Your task to perform on an android device: Open Chrome and go to the settings page Image 0: 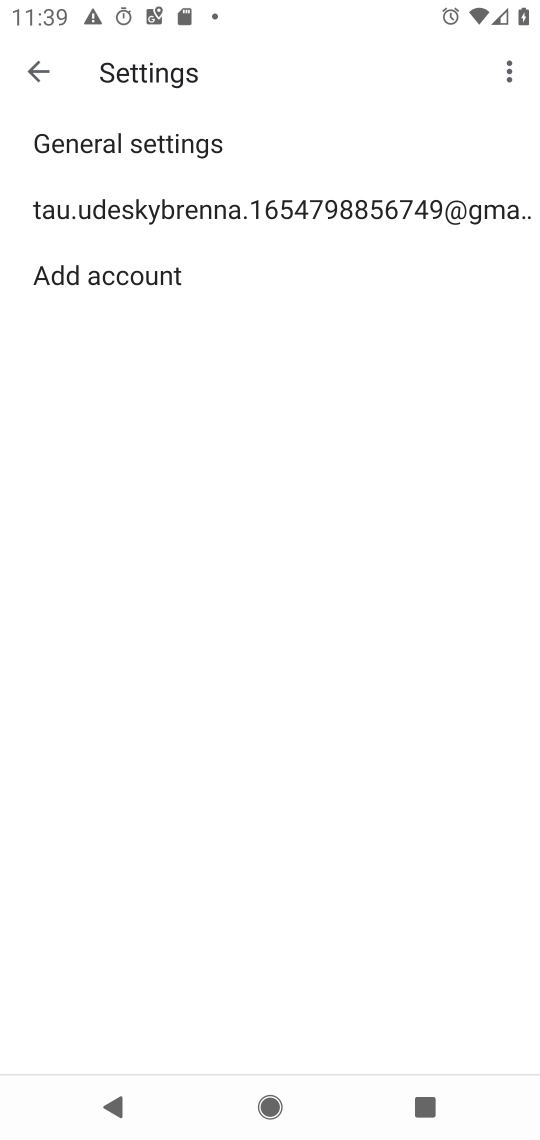
Step 0: press home button
Your task to perform on an android device: Open Chrome and go to the settings page Image 1: 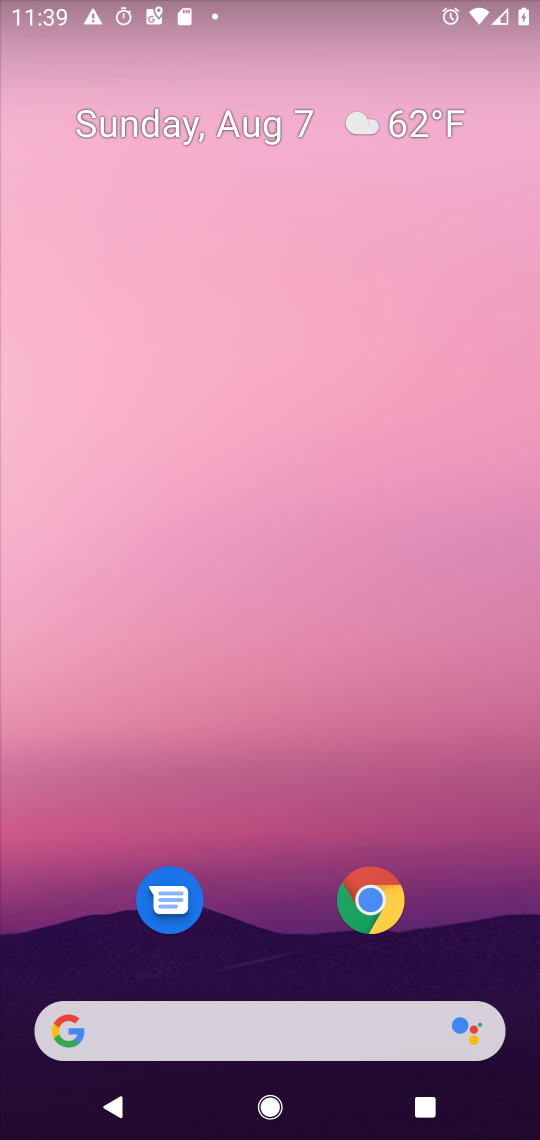
Step 1: click (364, 895)
Your task to perform on an android device: Open Chrome and go to the settings page Image 2: 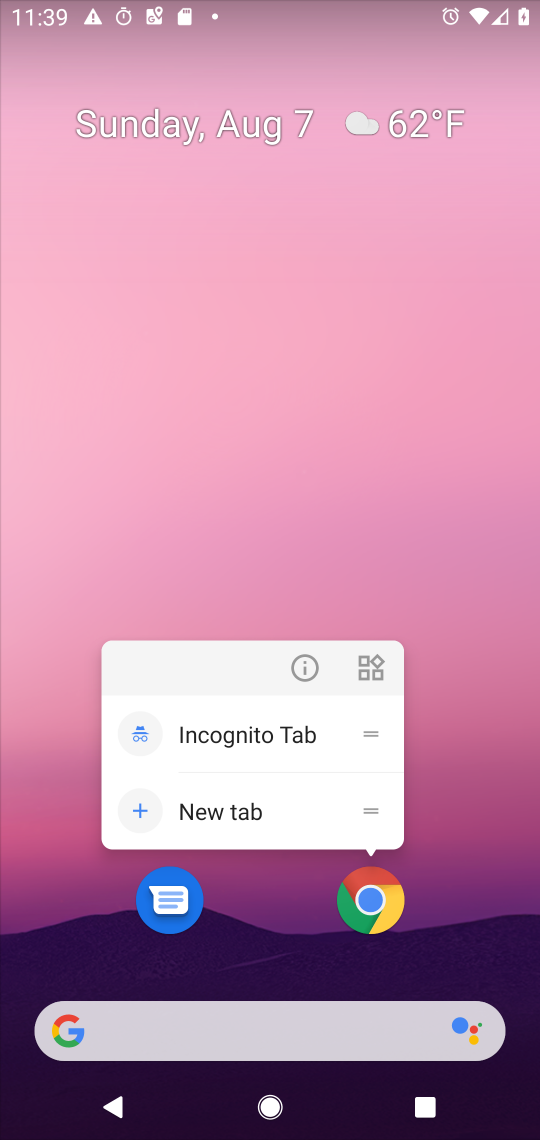
Step 2: click (370, 888)
Your task to perform on an android device: Open Chrome and go to the settings page Image 3: 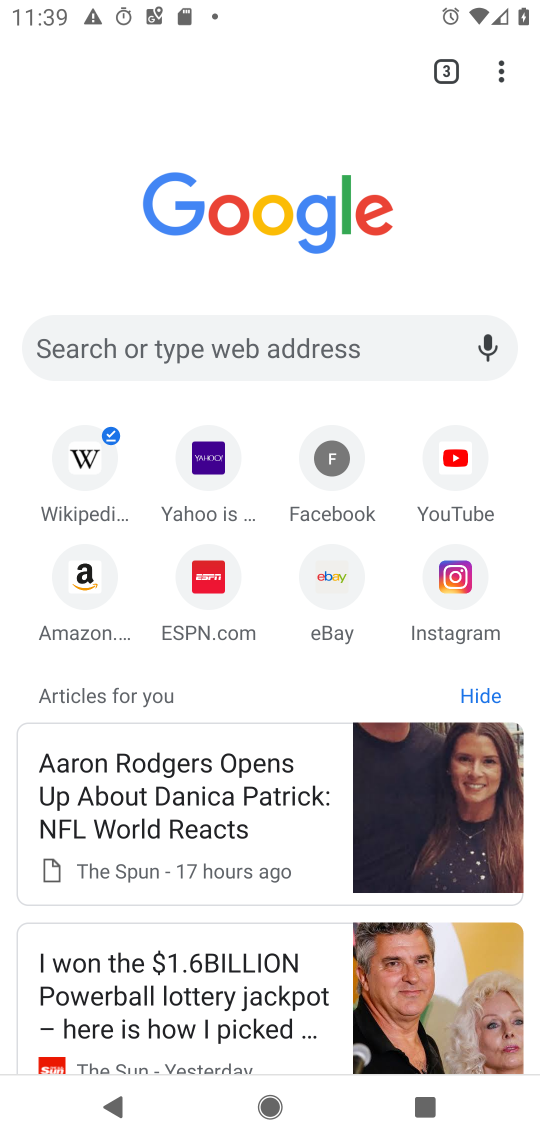
Step 3: click (500, 61)
Your task to perform on an android device: Open Chrome and go to the settings page Image 4: 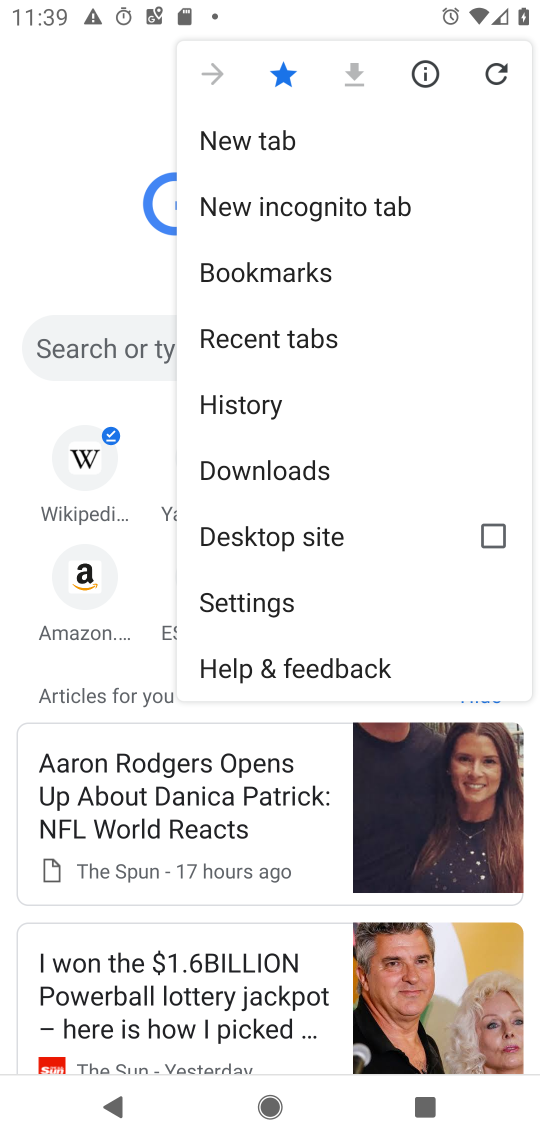
Step 4: click (312, 604)
Your task to perform on an android device: Open Chrome and go to the settings page Image 5: 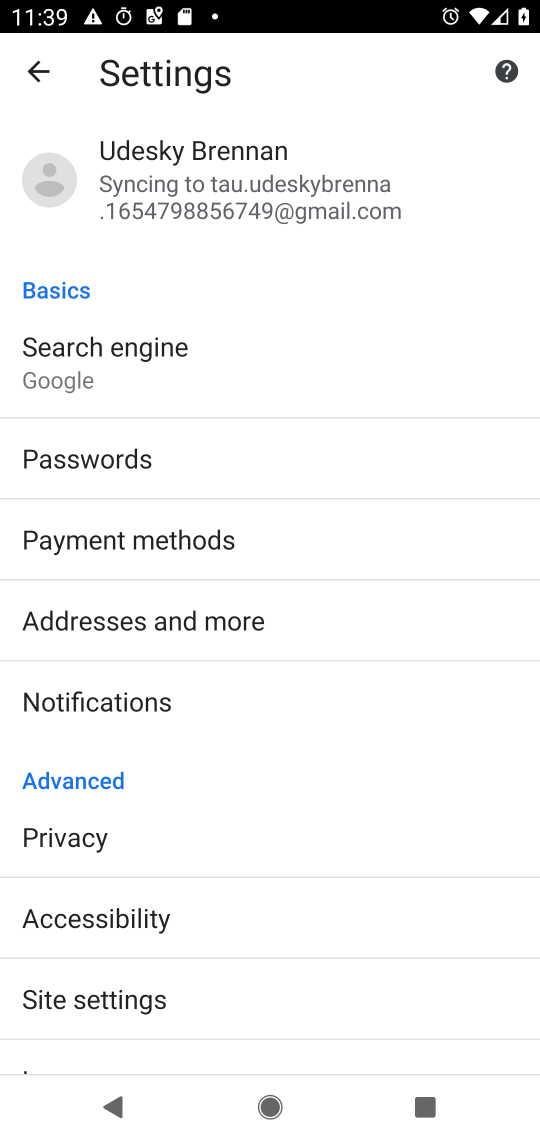
Step 5: task complete